Your task to perform on an android device: Search for pizza restaurants on Maps Image 0: 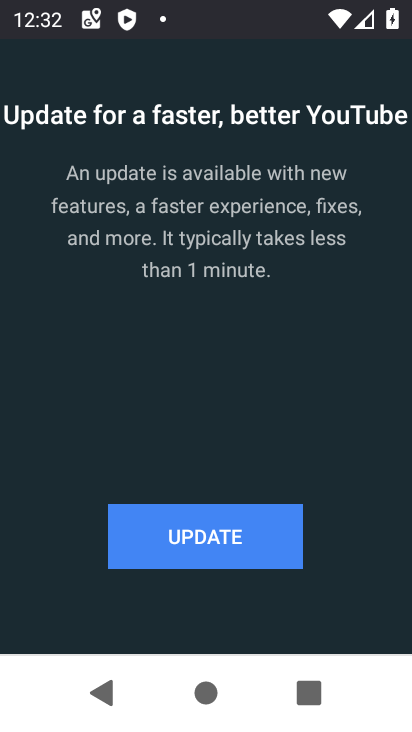
Step 0: press home button
Your task to perform on an android device: Search for pizza restaurants on Maps Image 1: 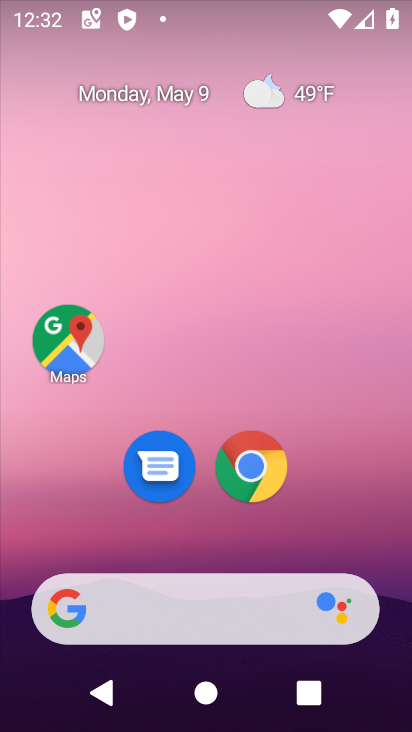
Step 1: drag from (404, 612) to (342, 137)
Your task to perform on an android device: Search for pizza restaurants on Maps Image 2: 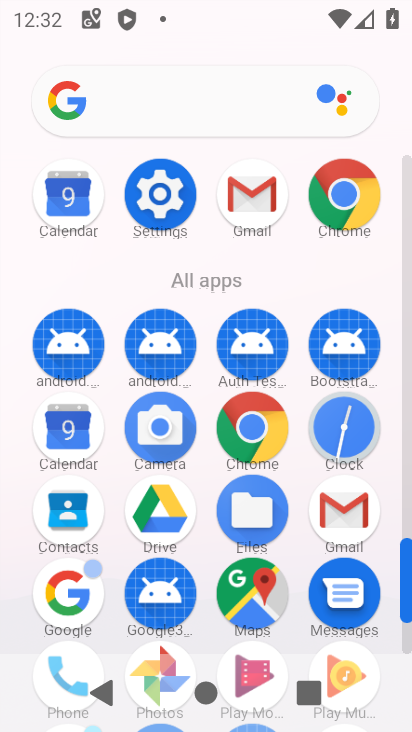
Step 2: click (270, 610)
Your task to perform on an android device: Search for pizza restaurants on Maps Image 3: 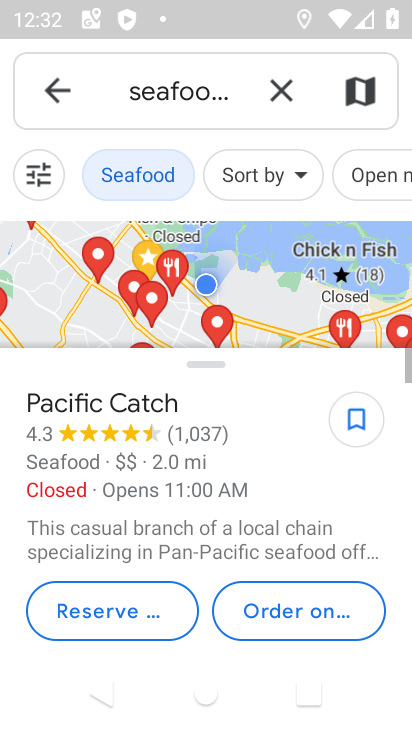
Step 3: click (284, 99)
Your task to perform on an android device: Search for pizza restaurants on Maps Image 4: 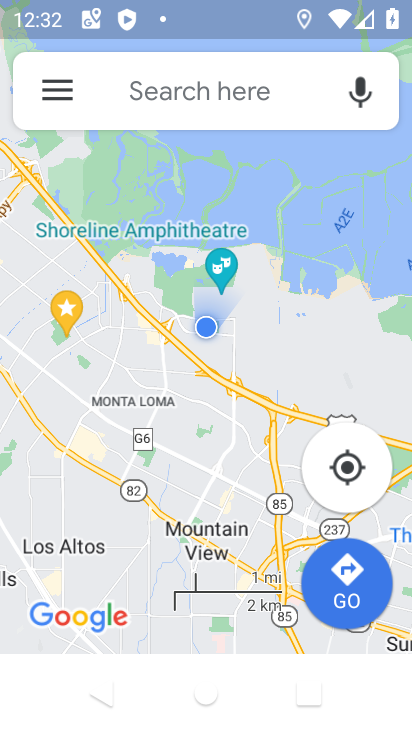
Step 4: click (182, 100)
Your task to perform on an android device: Search for pizza restaurants on Maps Image 5: 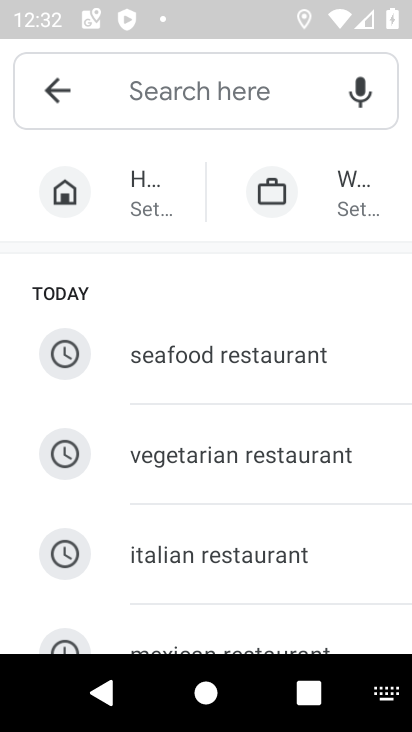
Step 5: drag from (307, 614) to (277, 344)
Your task to perform on an android device: Search for pizza restaurants on Maps Image 6: 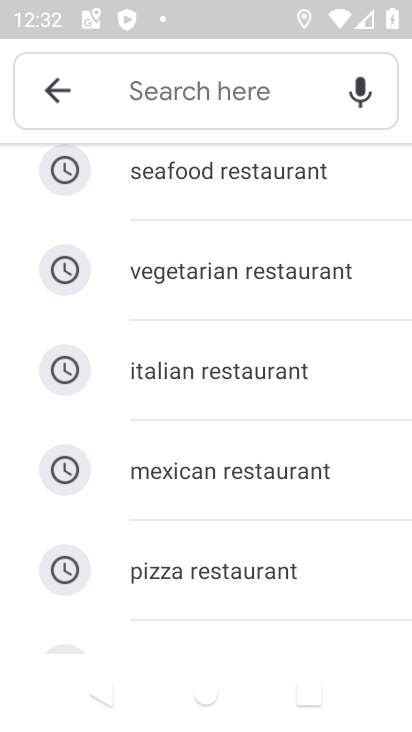
Step 6: click (290, 573)
Your task to perform on an android device: Search for pizza restaurants on Maps Image 7: 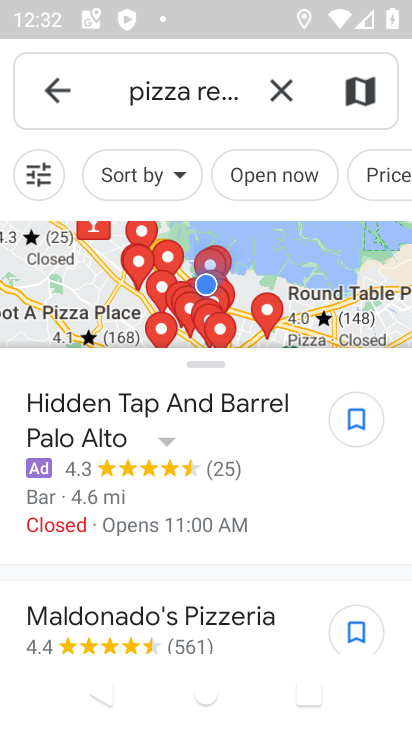
Step 7: task complete